Your task to perform on an android device: Open Amazon Image 0: 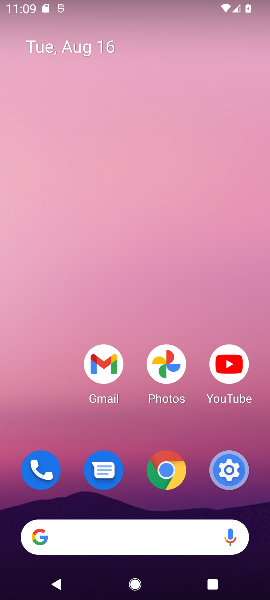
Step 0: click (162, 471)
Your task to perform on an android device: Open Amazon Image 1: 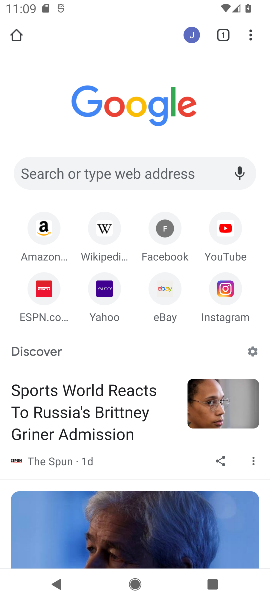
Step 1: click (46, 227)
Your task to perform on an android device: Open Amazon Image 2: 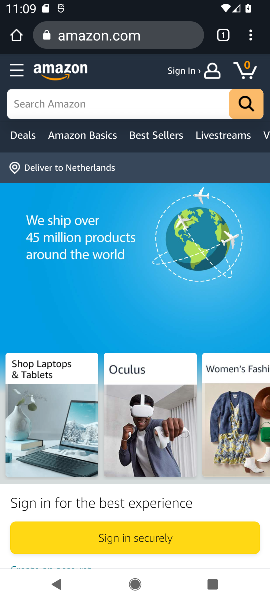
Step 2: task complete